Your task to perform on an android device: Add "asus rog" to the cart on newegg.com, then select checkout. Image 0: 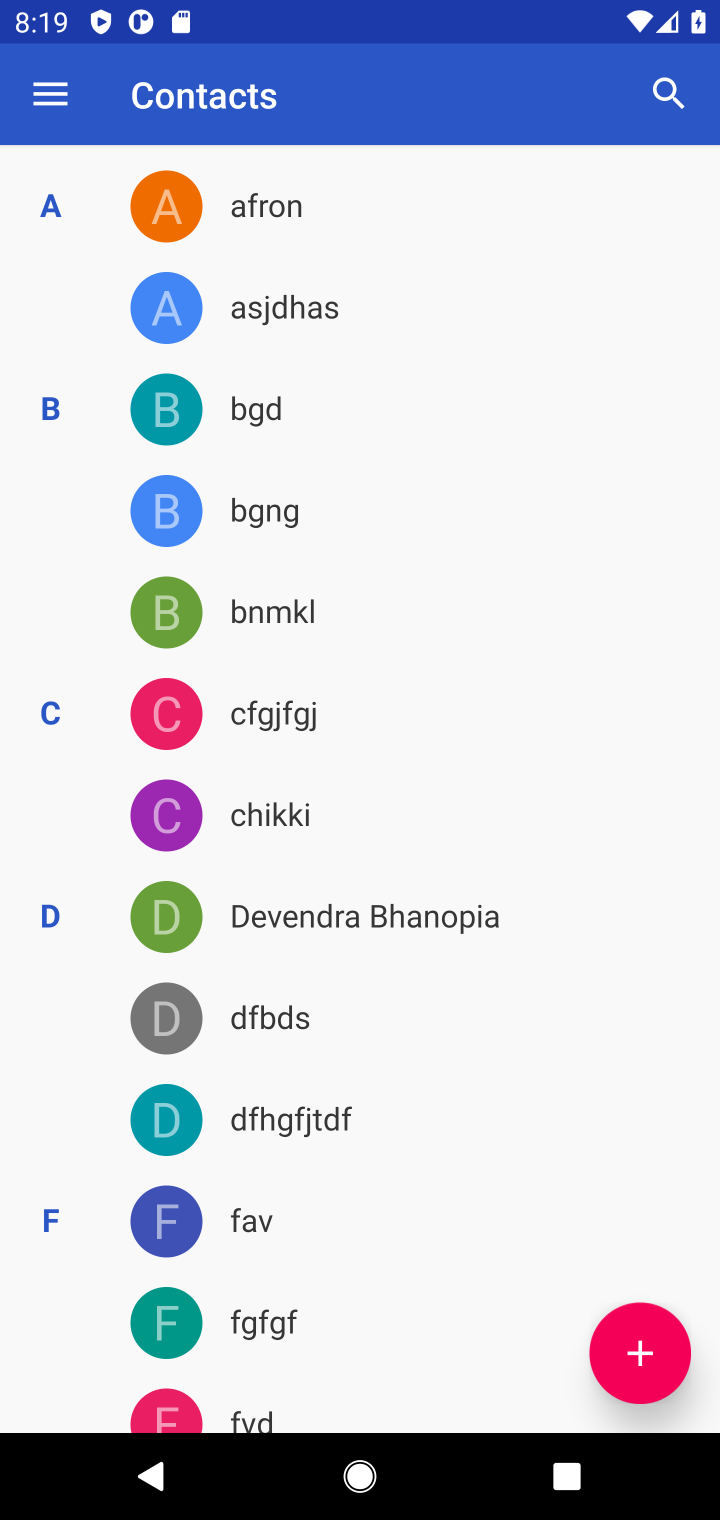
Step 0: press home button
Your task to perform on an android device: Add "asus rog" to the cart on newegg.com, then select checkout. Image 1: 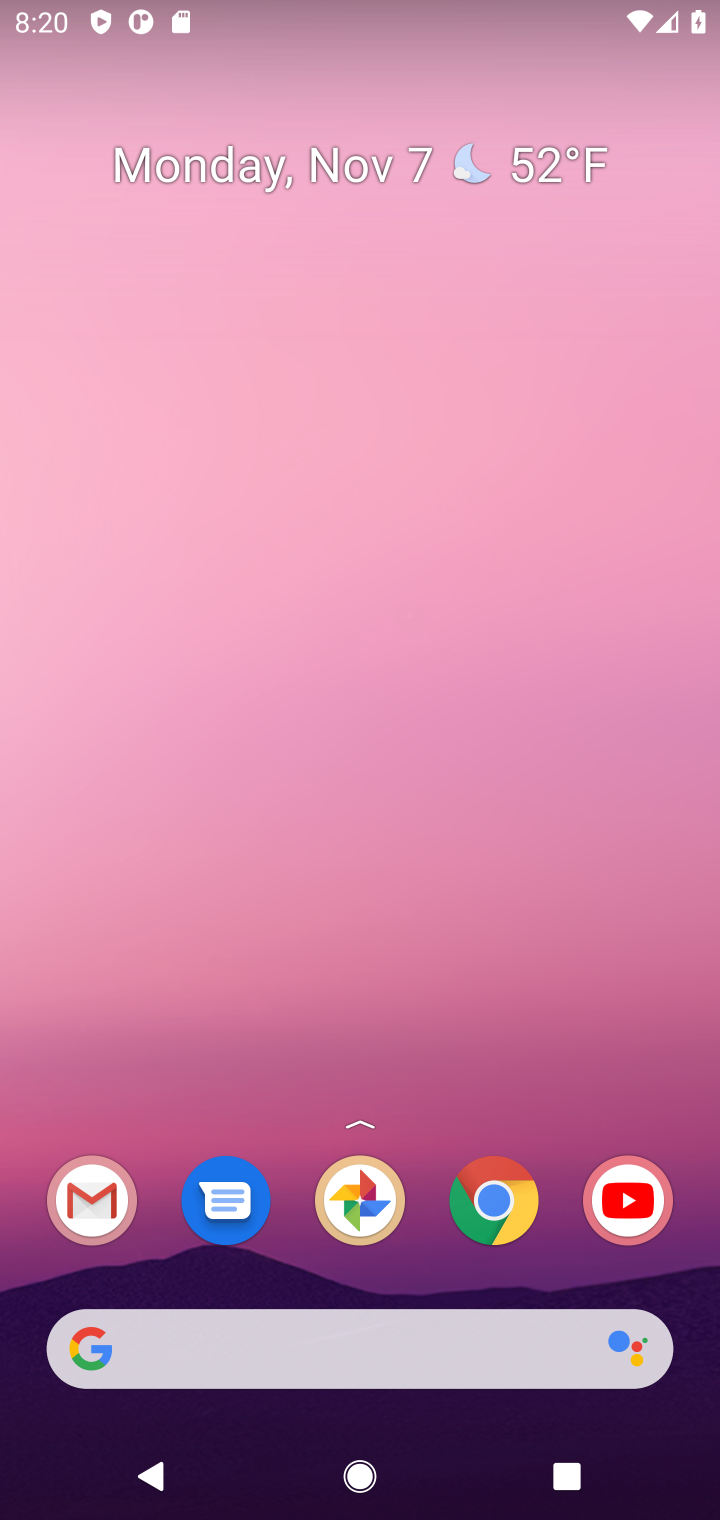
Step 1: click (505, 1203)
Your task to perform on an android device: Add "asus rog" to the cart on newegg.com, then select checkout. Image 2: 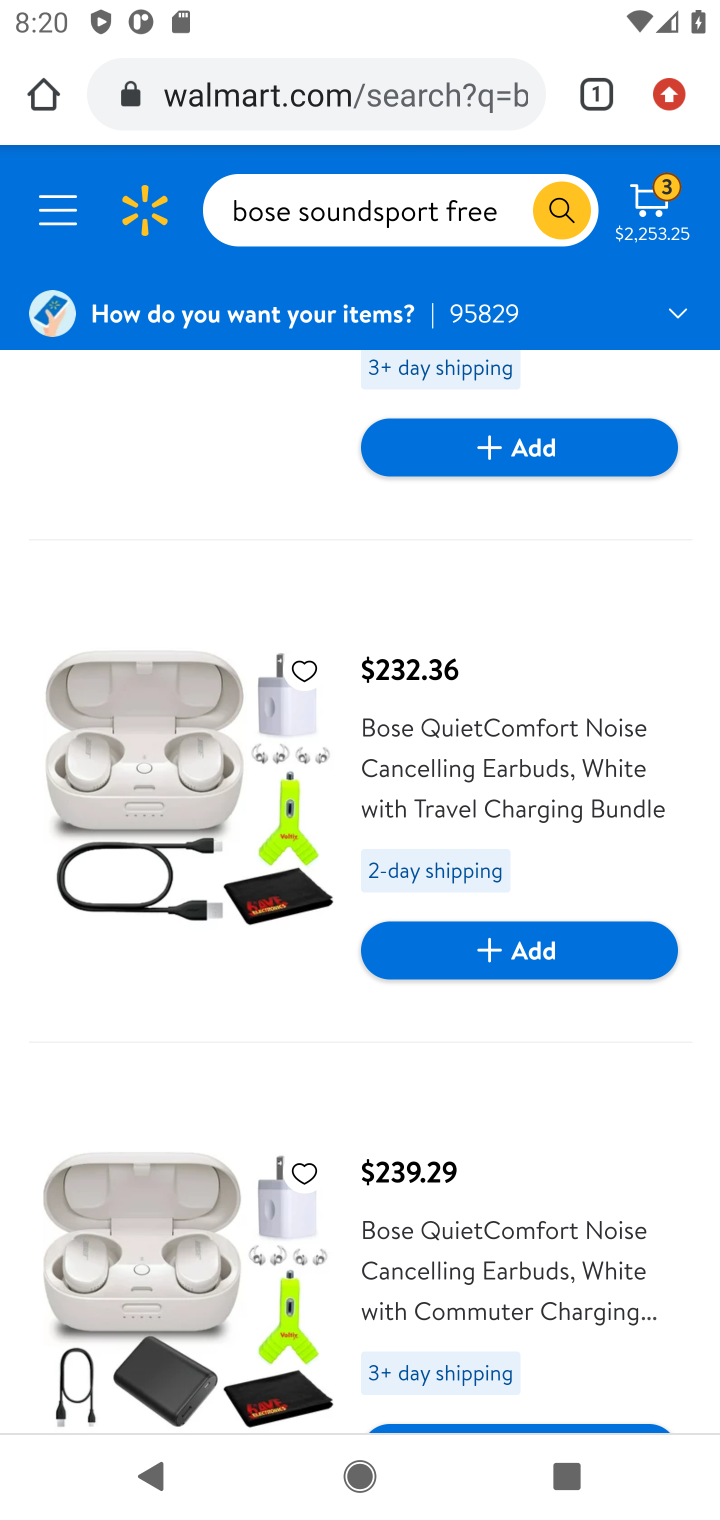
Step 2: click (254, 114)
Your task to perform on an android device: Add "asus rog" to the cart on newegg.com, then select checkout. Image 3: 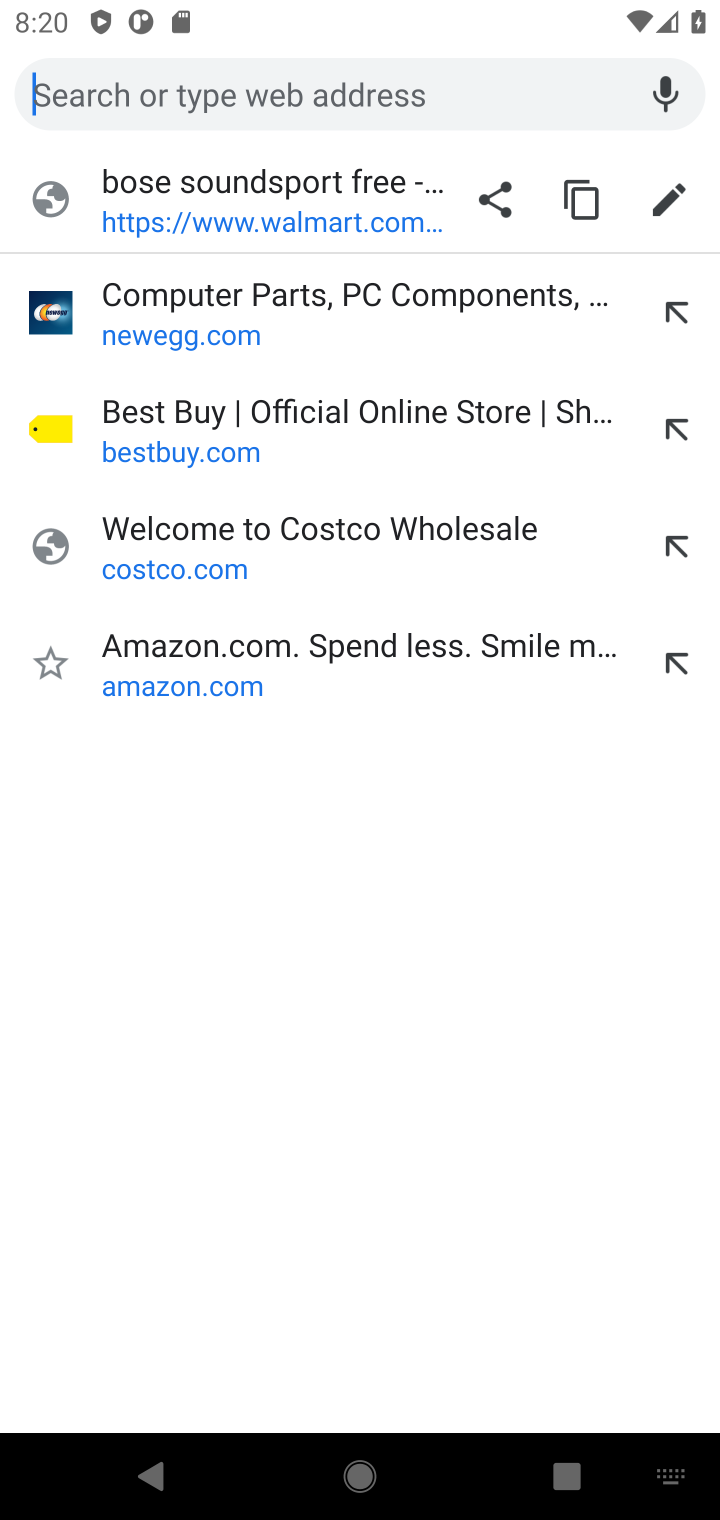
Step 3: click (269, 338)
Your task to perform on an android device: Add "asus rog" to the cart on newegg.com, then select checkout. Image 4: 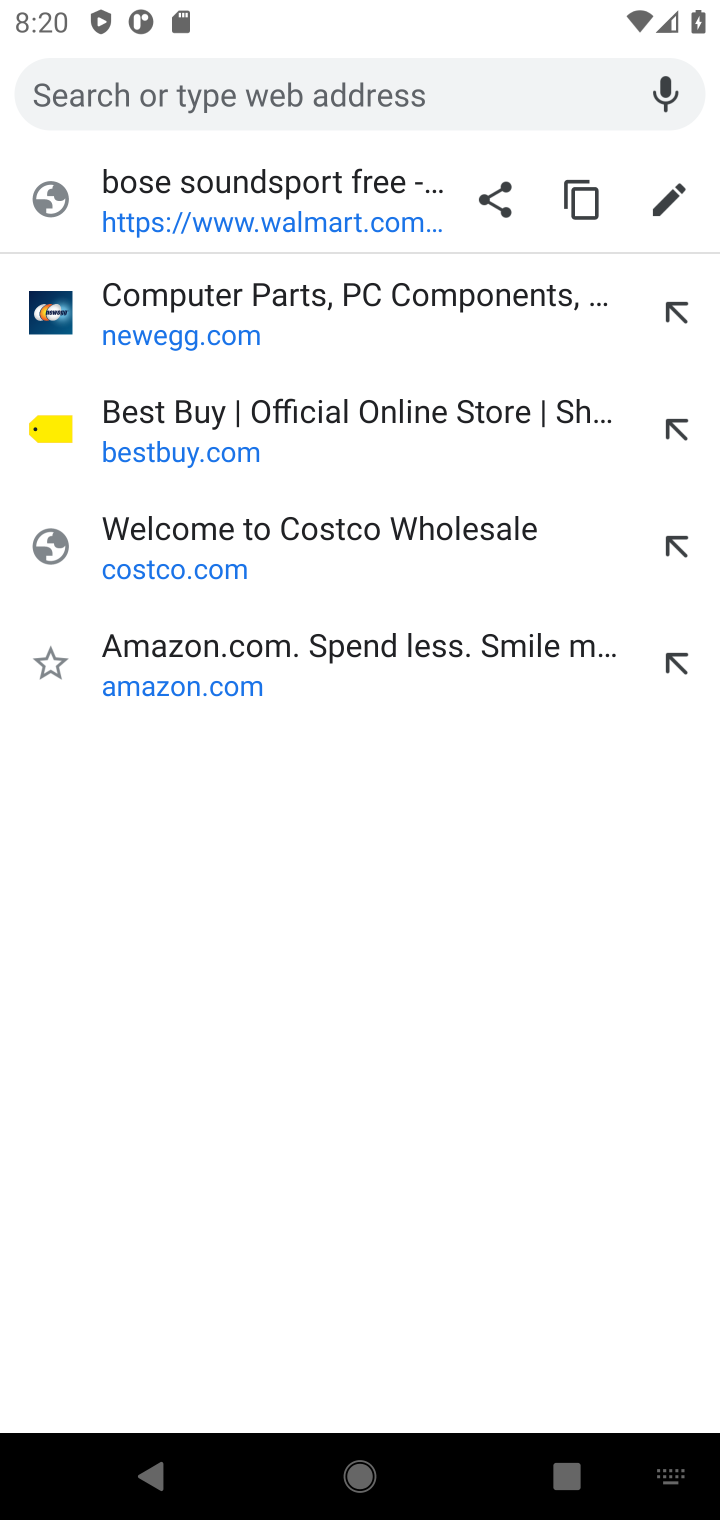
Step 4: click (294, 329)
Your task to perform on an android device: Add "asus rog" to the cart on newegg.com, then select checkout. Image 5: 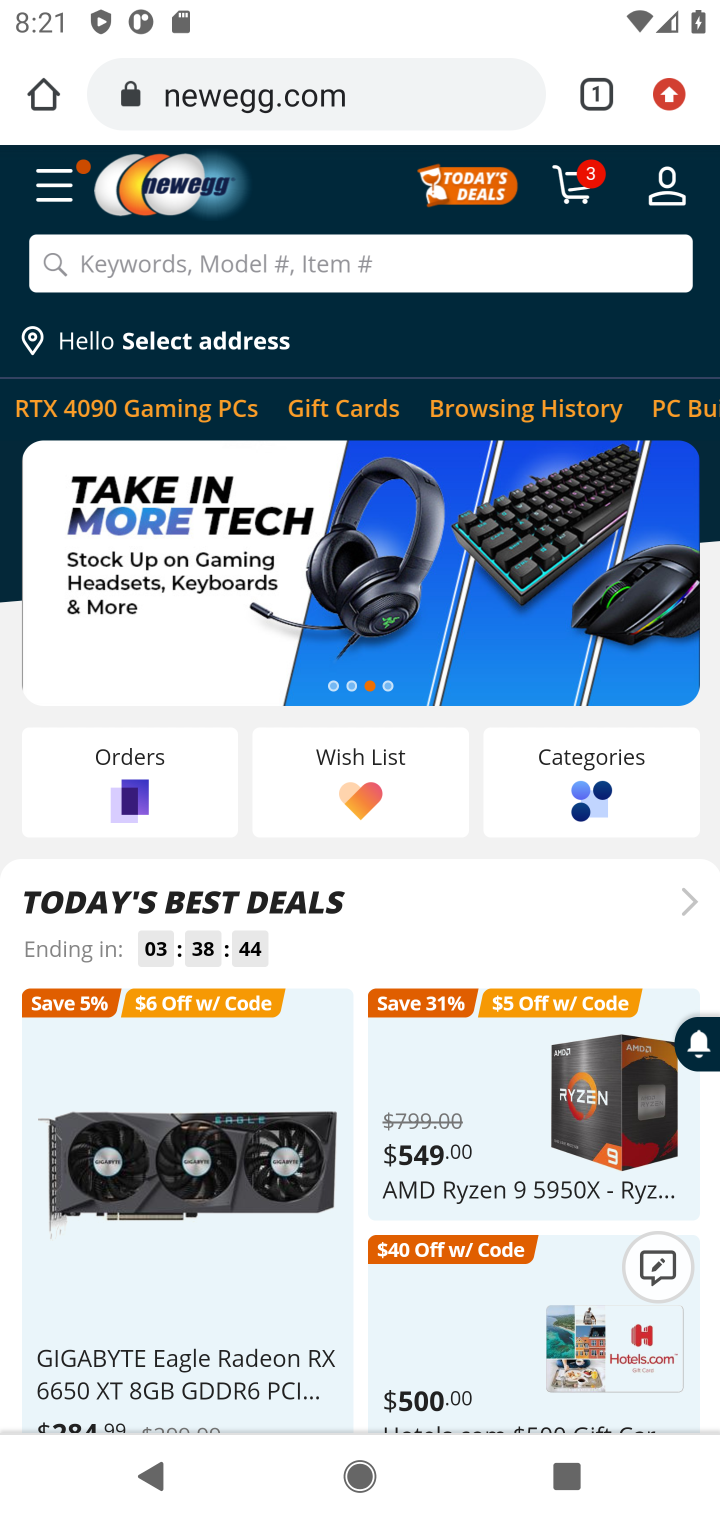
Step 5: click (290, 269)
Your task to perform on an android device: Add "asus rog" to the cart on newegg.com, then select checkout. Image 6: 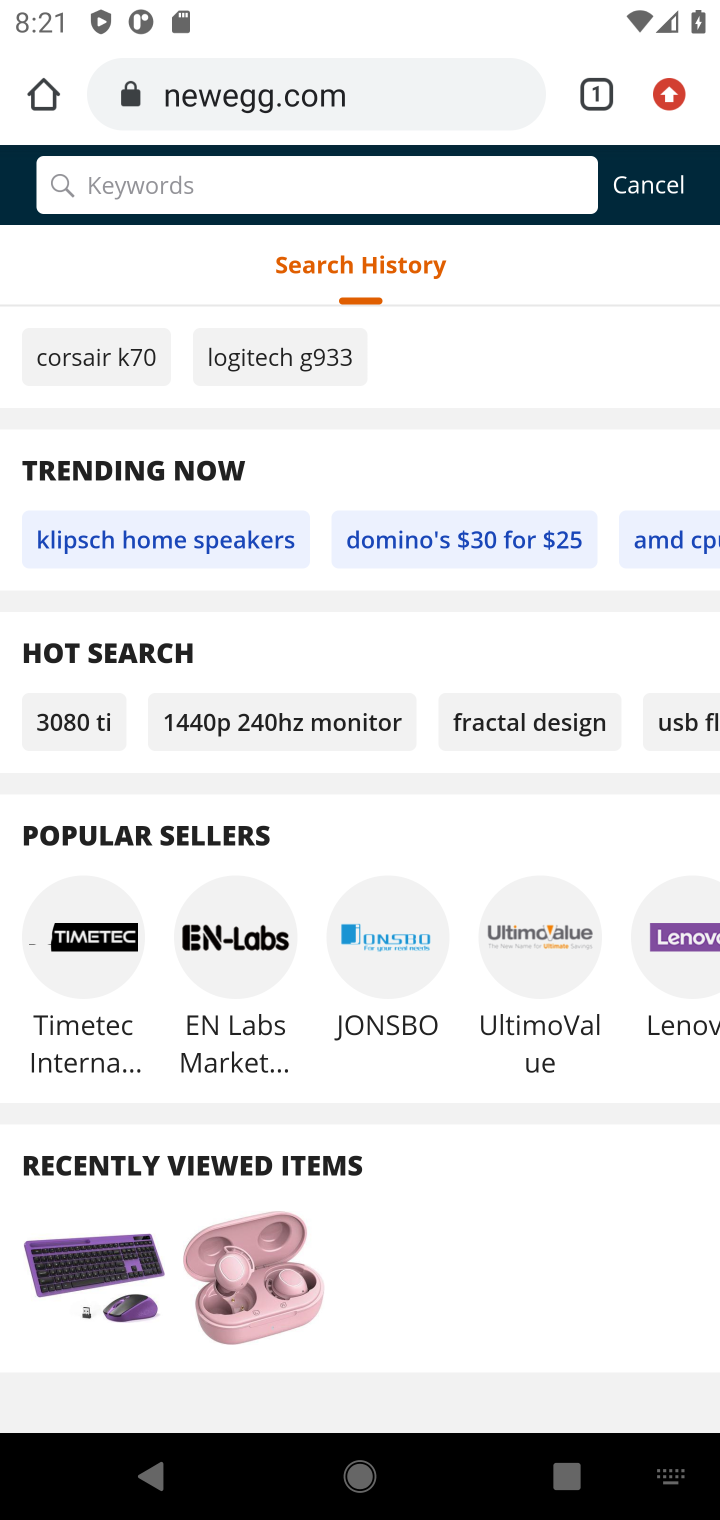
Step 6: type "asus rog"
Your task to perform on an android device: Add "asus rog" to the cart on newegg.com, then select checkout. Image 7: 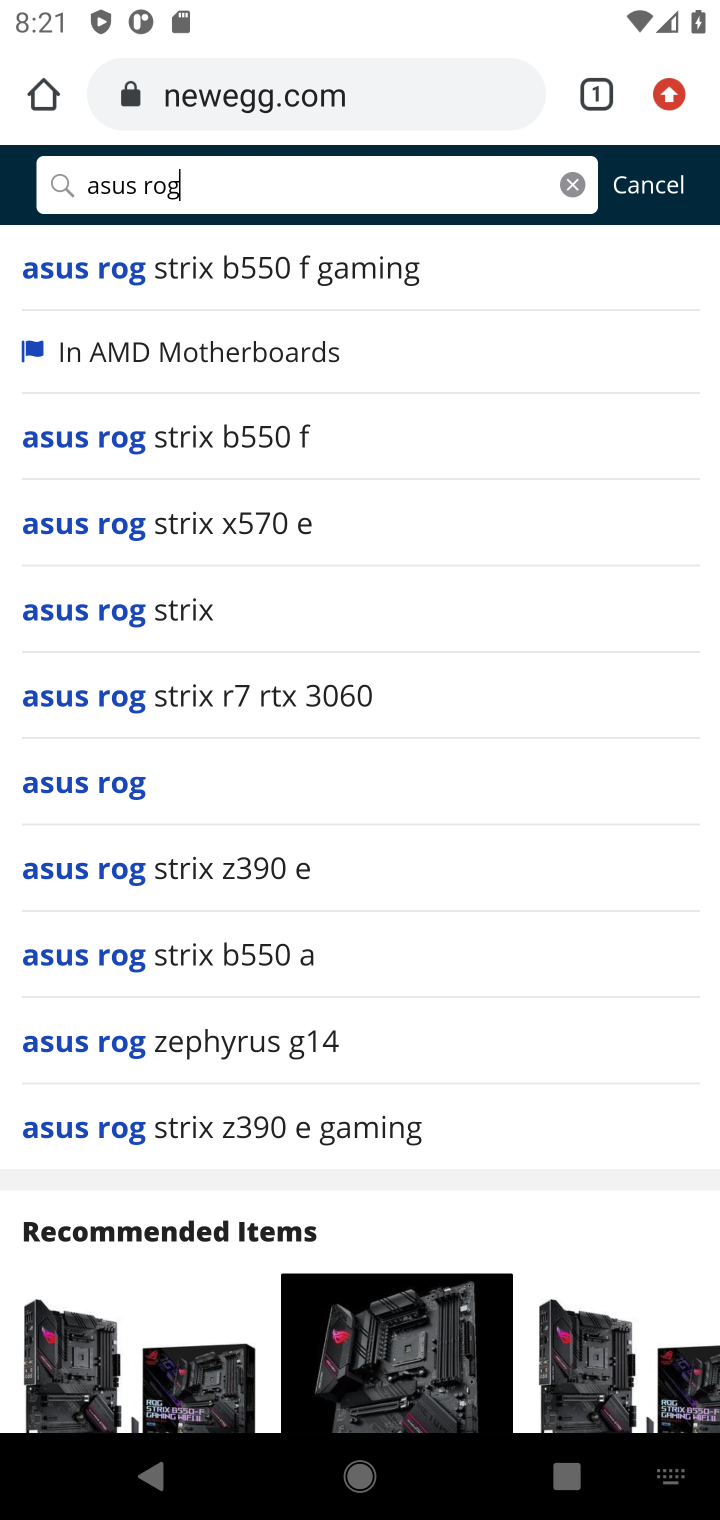
Step 7: press enter
Your task to perform on an android device: Add "asus rog" to the cart on newegg.com, then select checkout. Image 8: 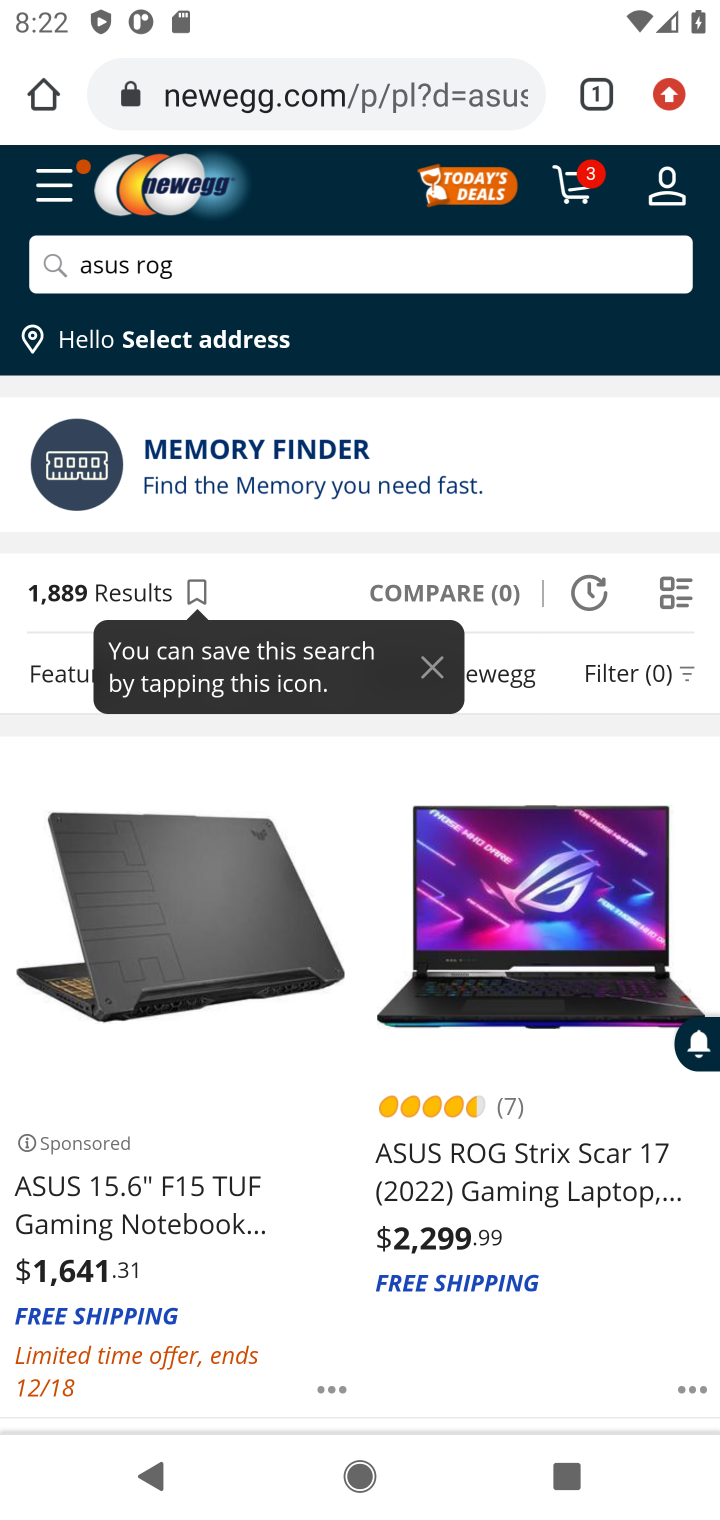
Step 8: click (220, 1214)
Your task to perform on an android device: Add "asus rog" to the cart on newegg.com, then select checkout. Image 9: 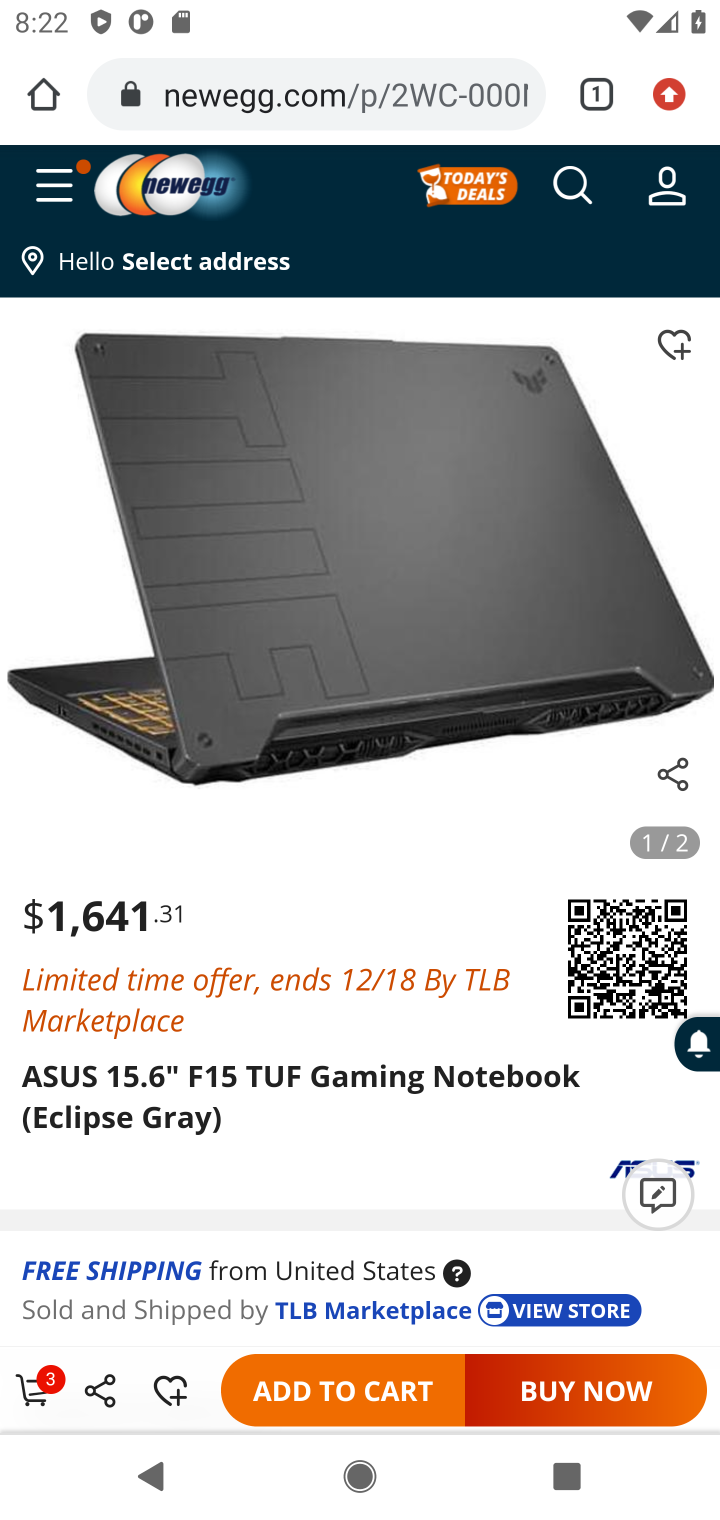
Step 9: click (330, 1389)
Your task to perform on an android device: Add "asus rog" to the cart on newegg.com, then select checkout. Image 10: 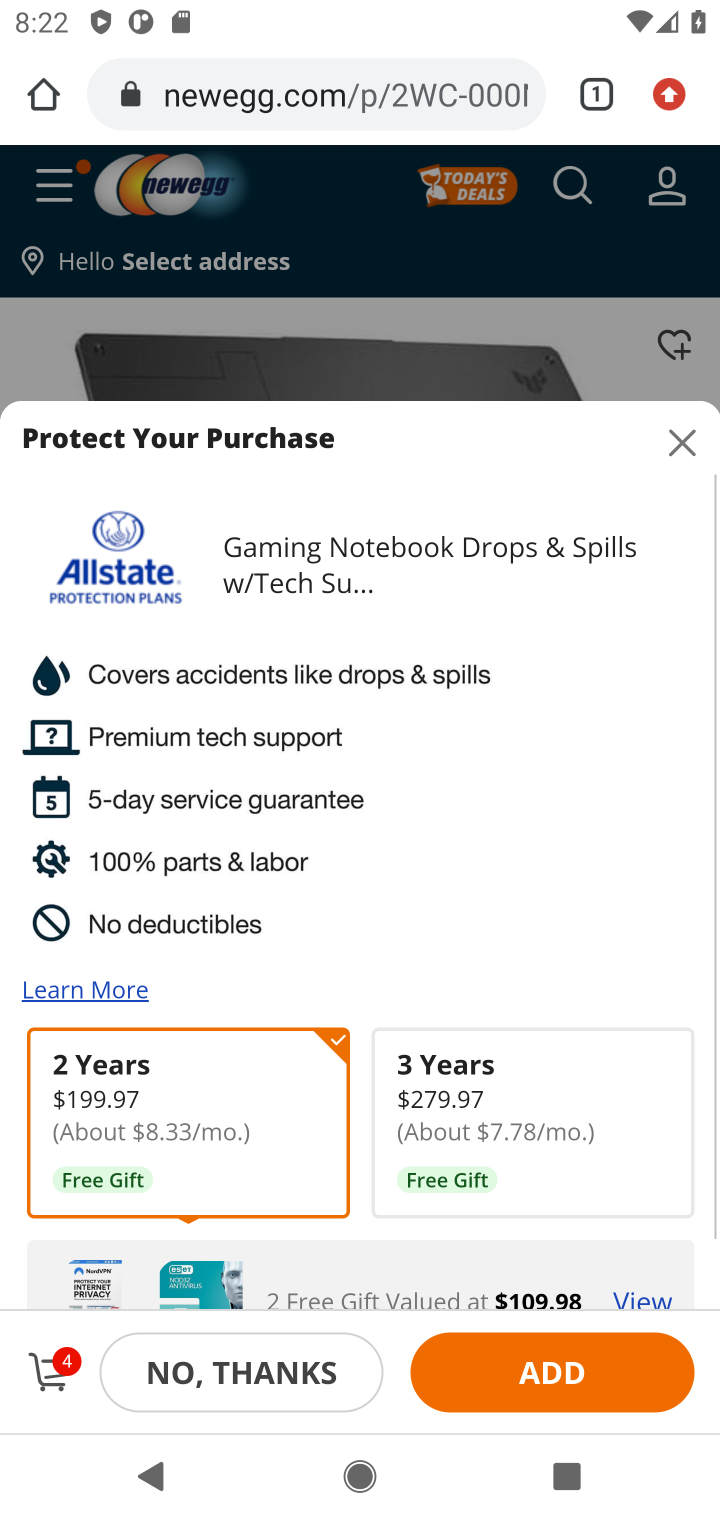
Step 10: click (514, 1383)
Your task to perform on an android device: Add "asus rog" to the cart on newegg.com, then select checkout. Image 11: 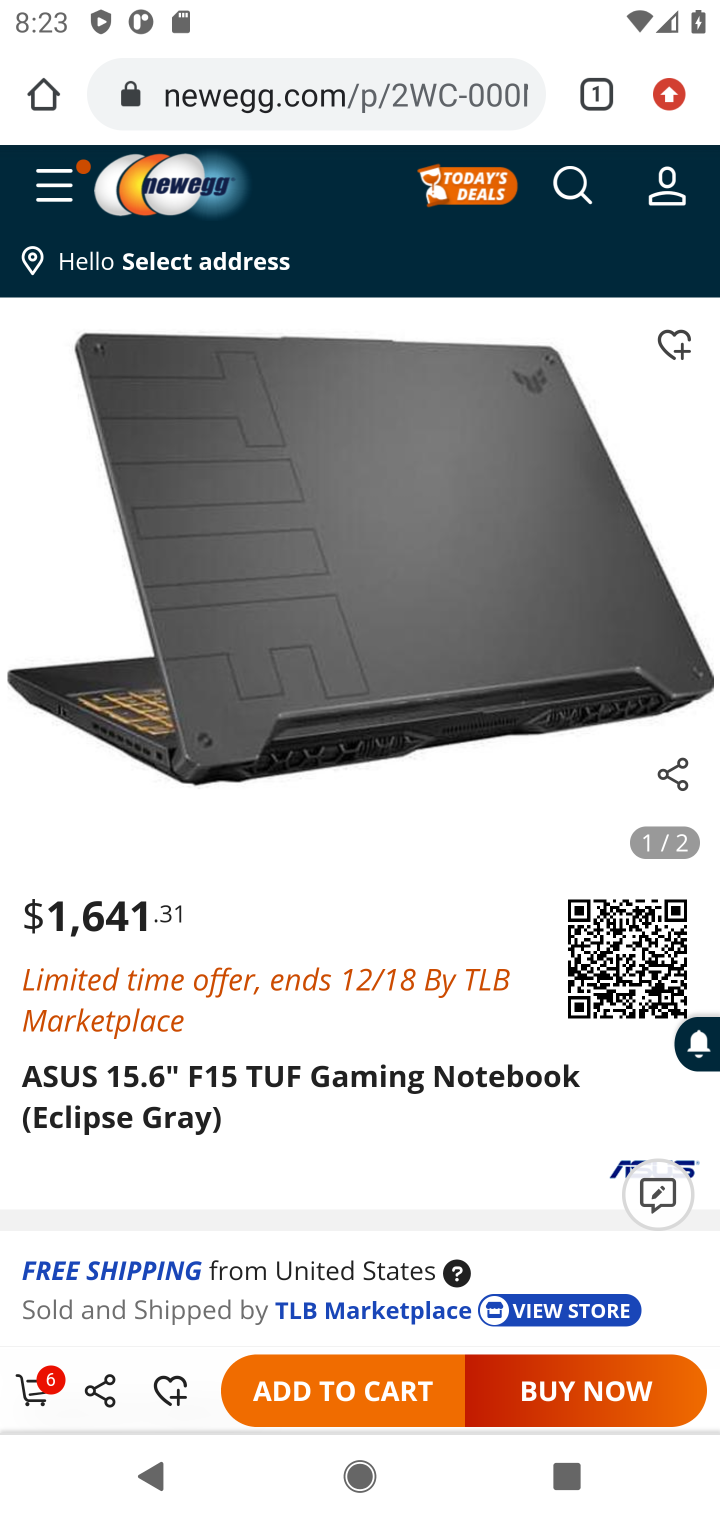
Step 11: click (64, 185)
Your task to perform on an android device: Add "asus rog" to the cart on newegg.com, then select checkout. Image 12: 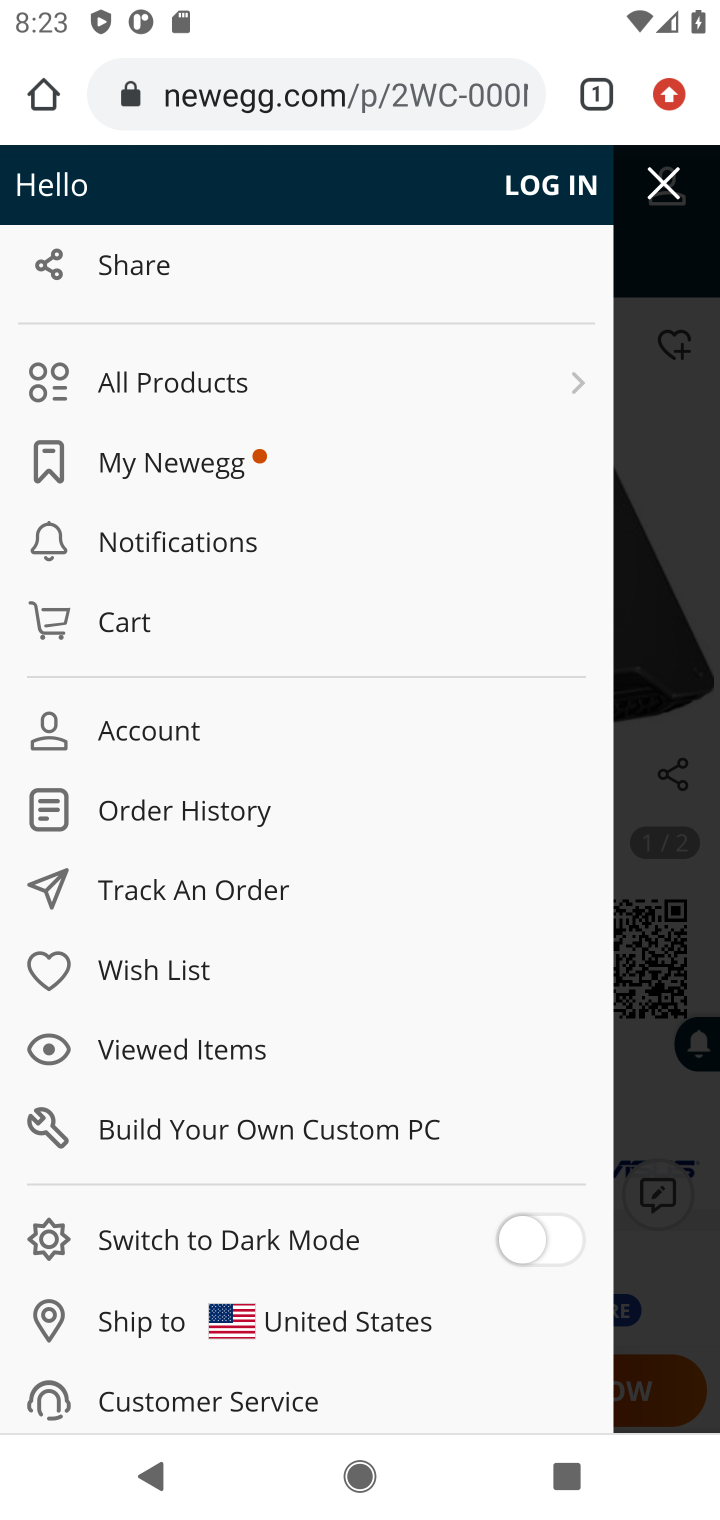
Step 12: click (178, 623)
Your task to perform on an android device: Add "asus rog" to the cart on newegg.com, then select checkout. Image 13: 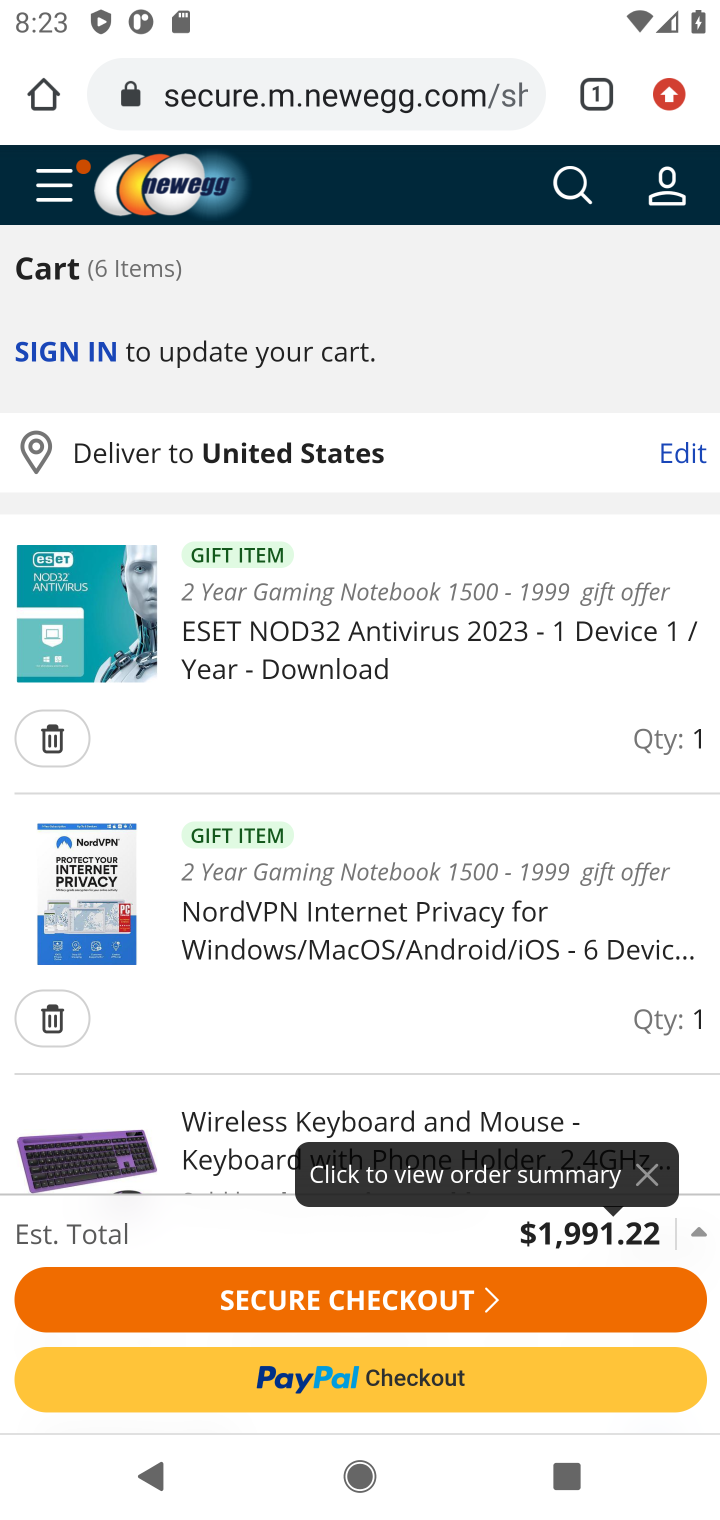
Step 13: click (374, 1295)
Your task to perform on an android device: Add "asus rog" to the cart on newegg.com, then select checkout. Image 14: 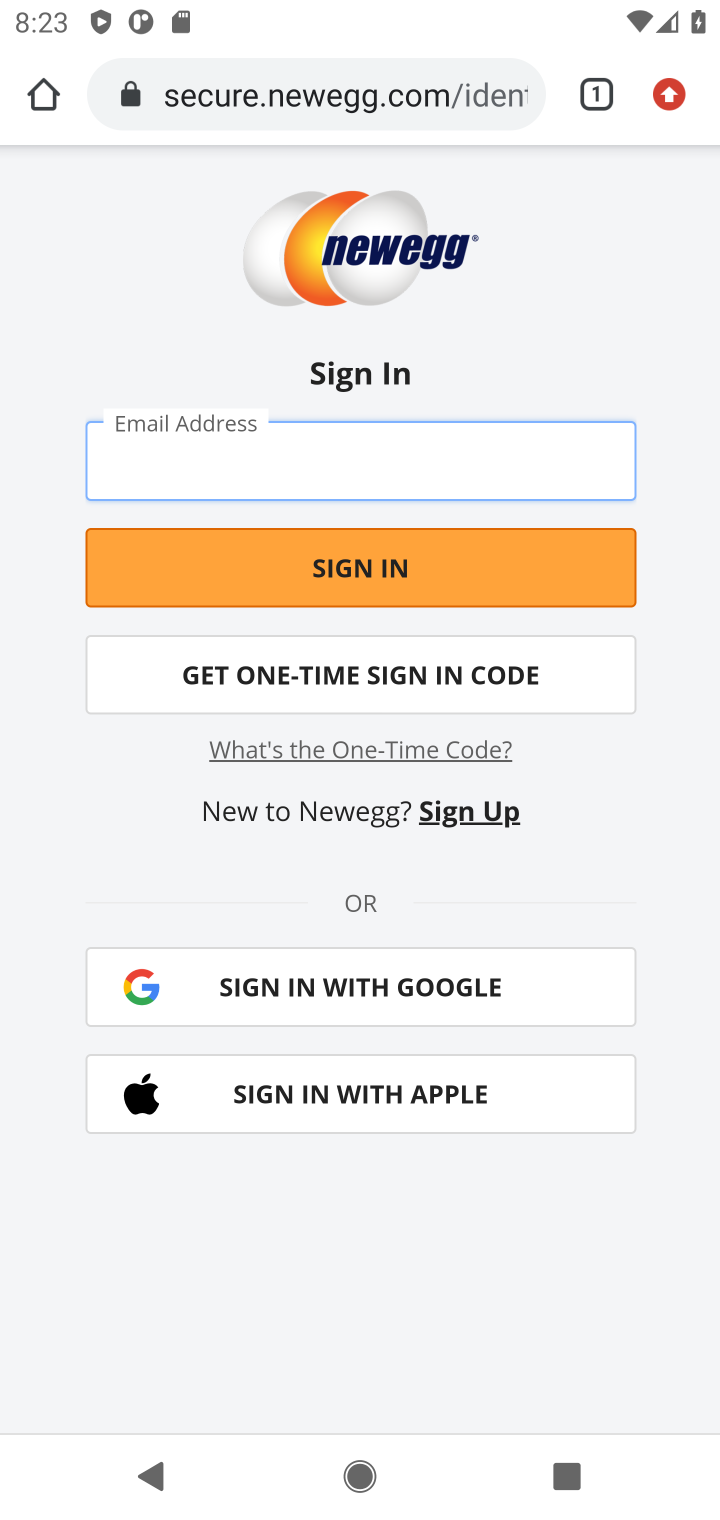
Step 14: task complete